Your task to perform on an android device: turn on sleep mode Image 0: 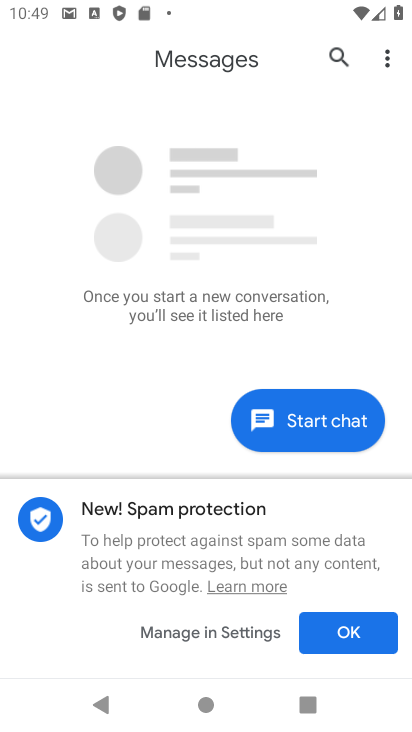
Step 0: press home button
Your task to perform on an android device: turn on sleep mode Image 1: 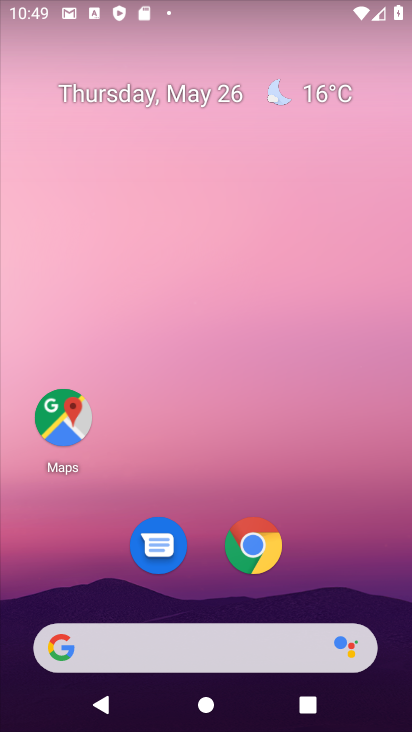
Step 1: drag from (340, 590) to (301, 198)
Your task to perform on an android device: turn on sleep mode Image 2: 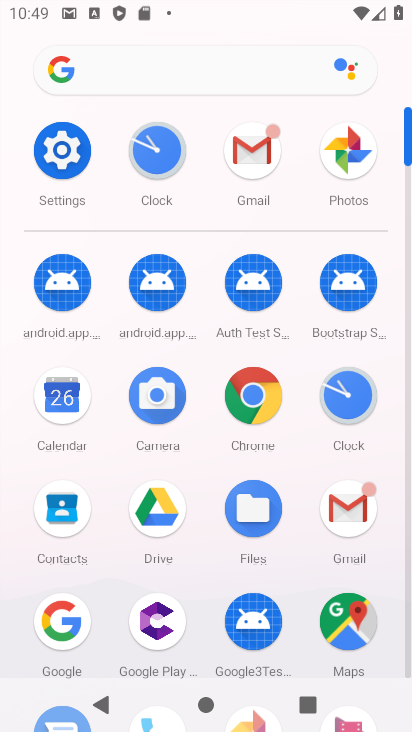
Step 2: click (63, 167)
Your task to perform on an android device: turn on sleep mode Image 3: 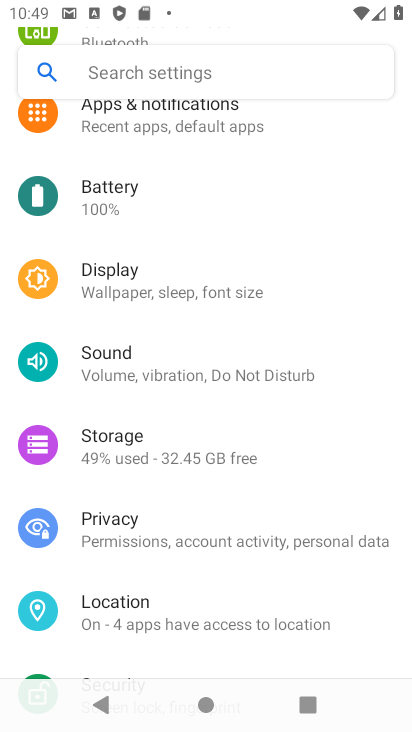
Step 3: click (115, 287)
Your task to perform on an android device: turn on sleep mode Image 4: 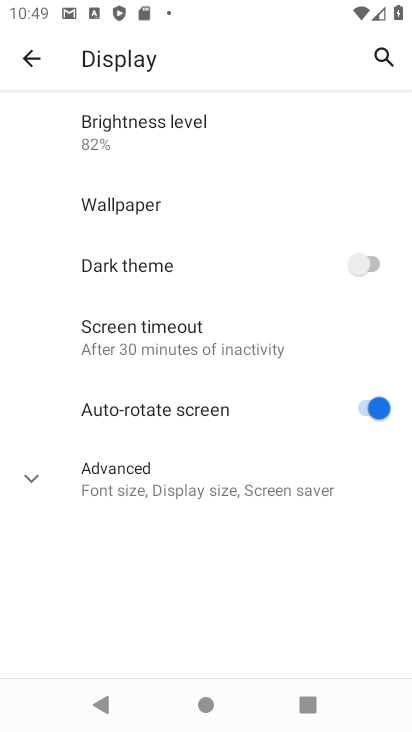
Step 4: task complete